Your task to perform on an android device: Open Youtube and go to the subscriptions tab Image 0: 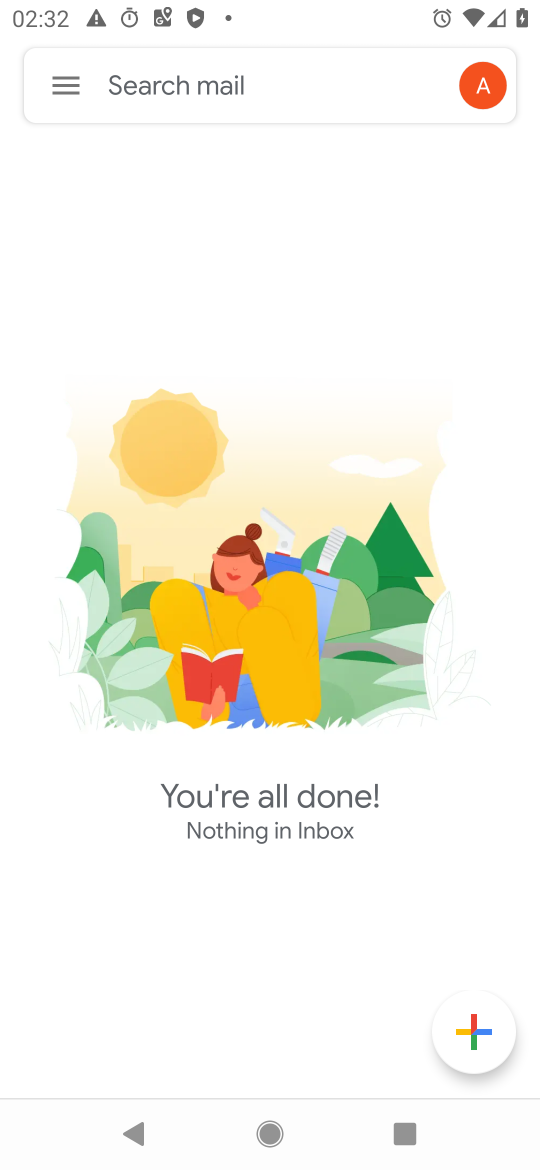
Step 0: press home button
Your task to perform on an android device: Open Youtube and go to the subscriptions tab Image 1: 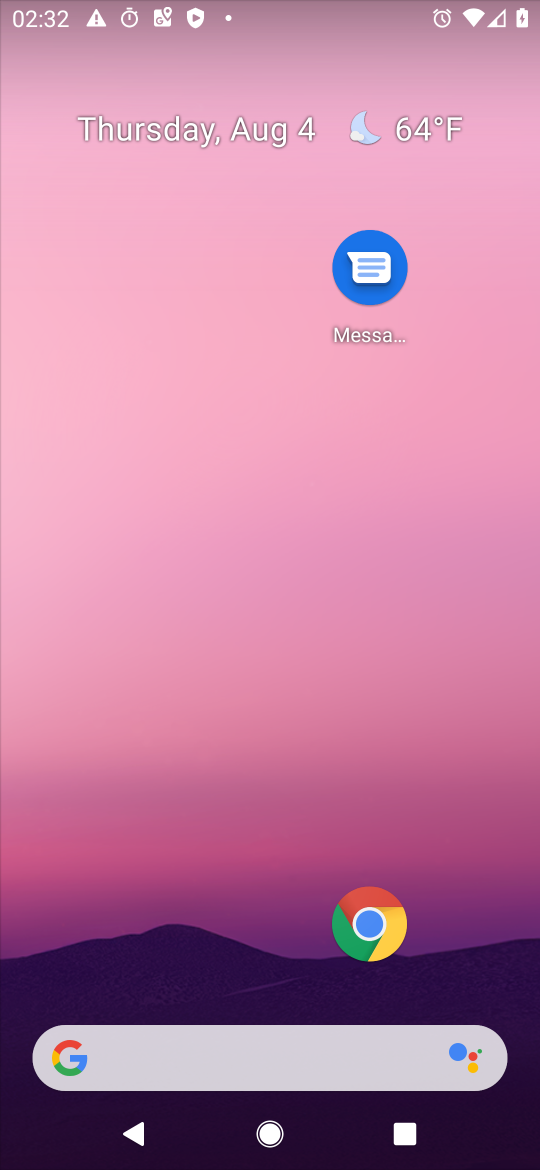
Step 1: drag from (90, 1104) to (356, 117)
Your task to perform on an android device: Open Youtube and go to the subscriptions tab Image 2: 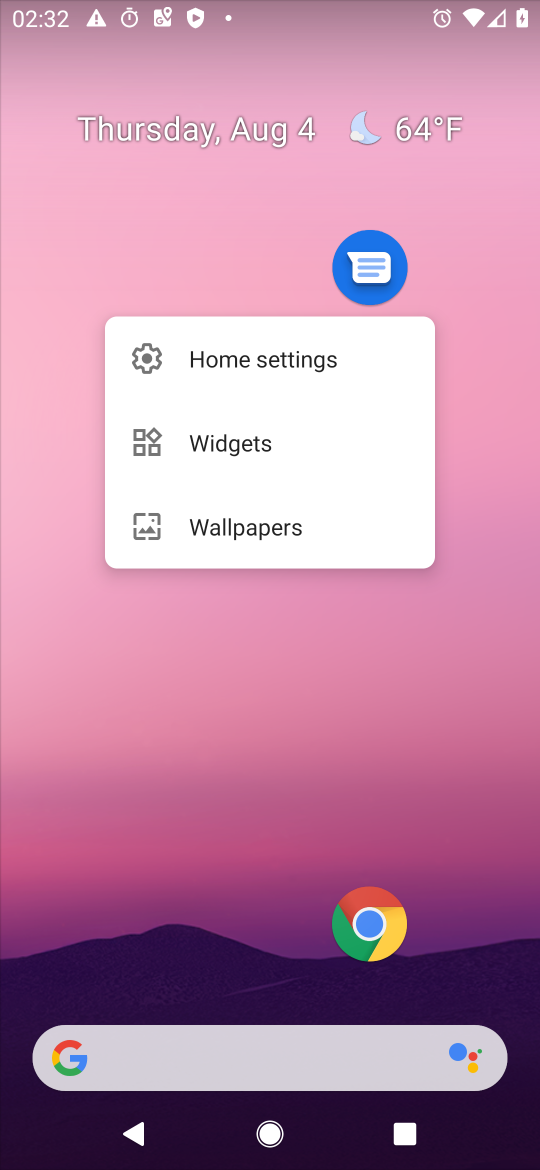
Step 2: drag from (219, 434) to (344, 12)
Your task to perform on an android device: Open Youtube and go to the subscriptions tab Image 3: 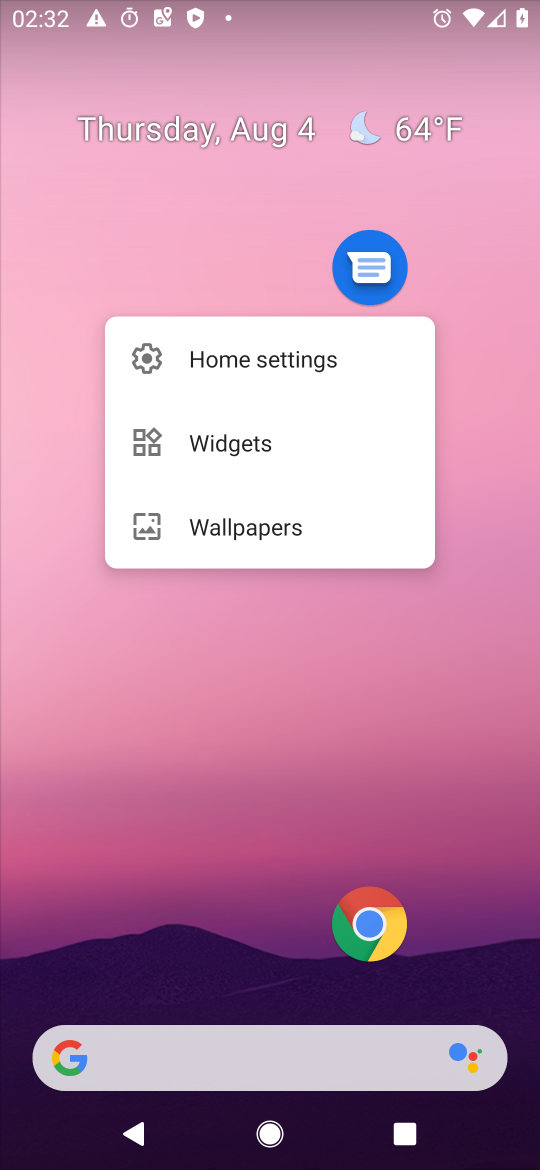
Step 3: drag from (319, 153) to (315, 20)
Your task to perform on an android device: Open Youtube and go to the subscriptions tab Image 4: 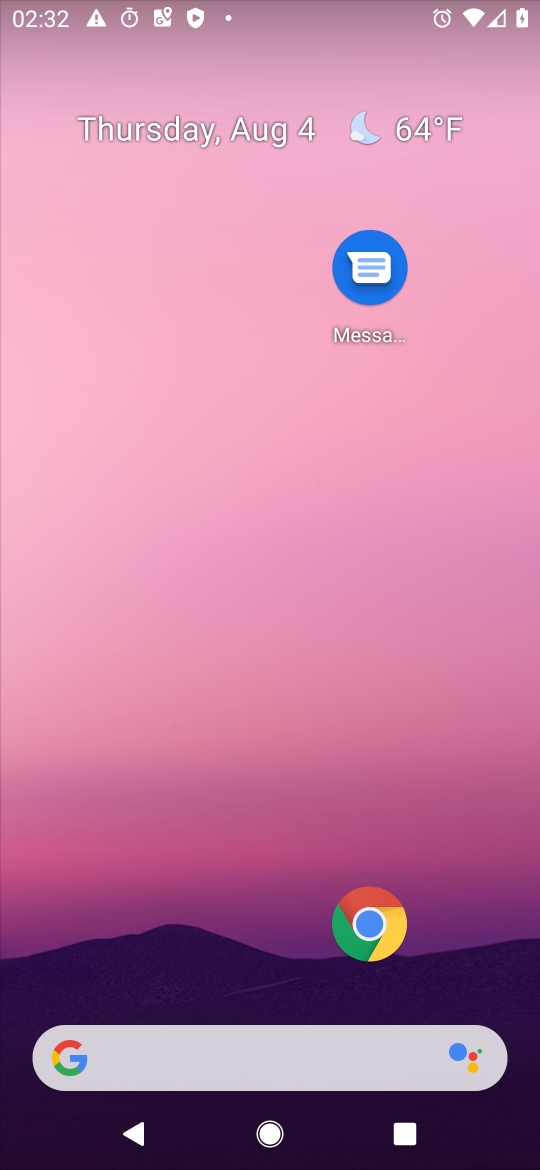
Step 4: drag from (93, 747) to (302, 139)
Your task to perform on an android device: Open Youtube and go to the subscriptions tab Image 5: 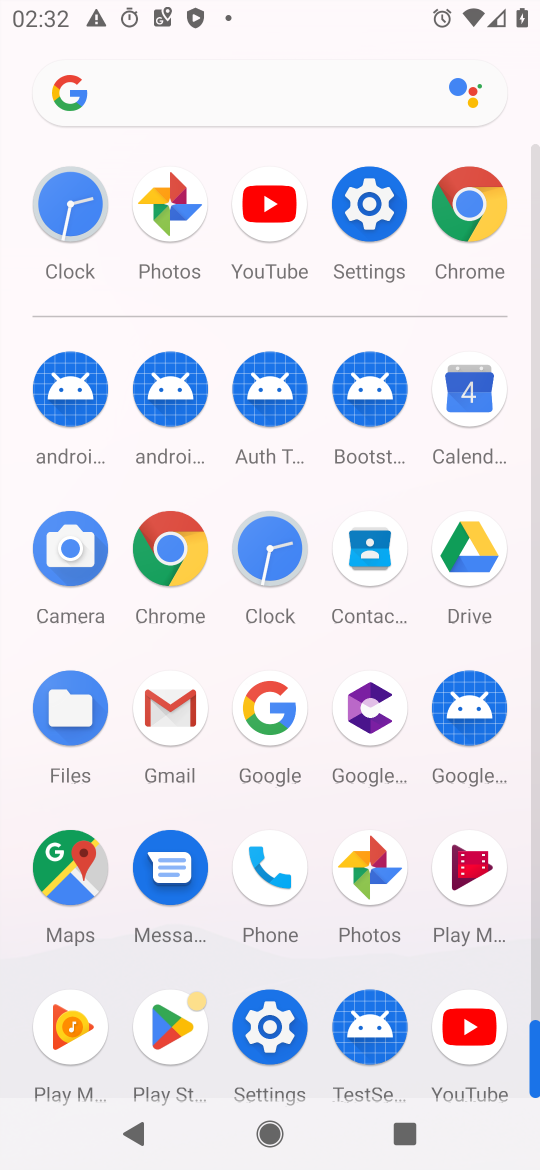
Step 5: click (446, 1023)
Your task to perform on an android device: Open Youtube and go to the subscriptions tab Image 6: 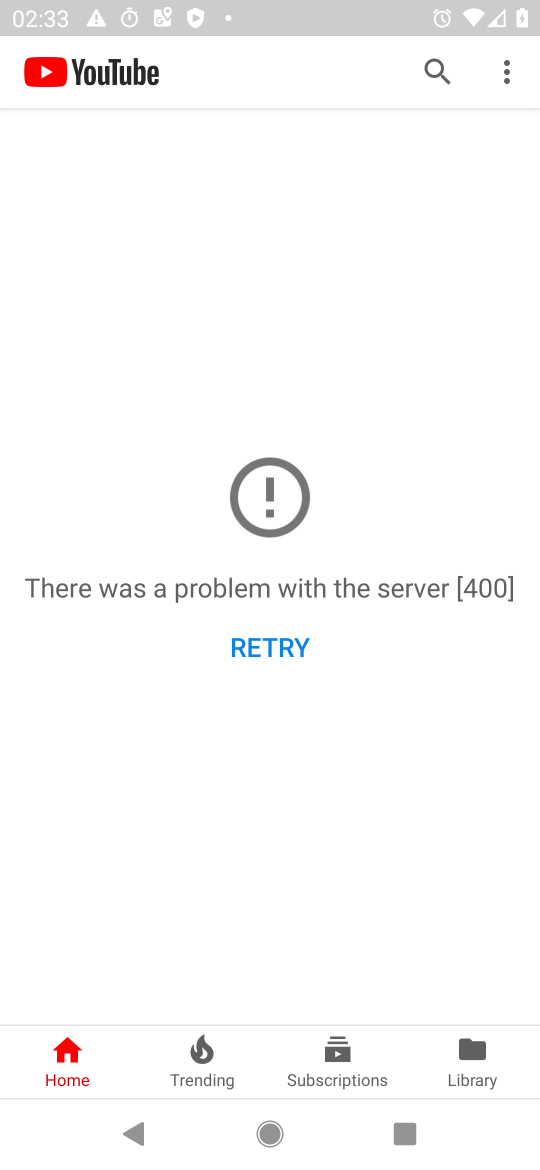
Step 6: click (362, 1052)
Your task to perform on an android device: Open Youtube and go to the subscriptions tab Image 7: 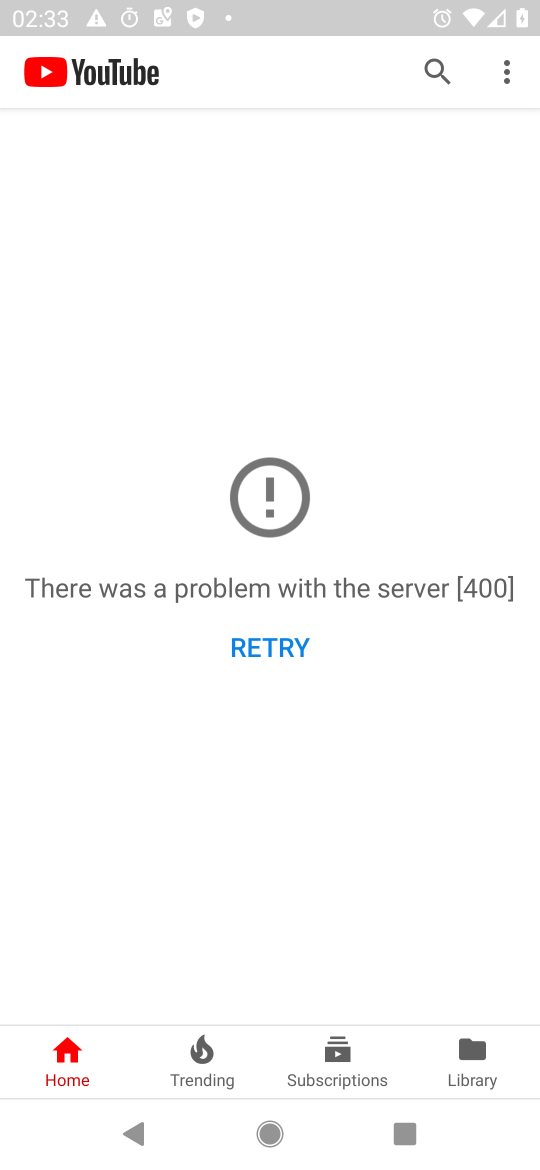
Step 7: click (345, 1048)
Your task to perform on an android device: Open Youtube and go to the subscriptions tab Image 8: 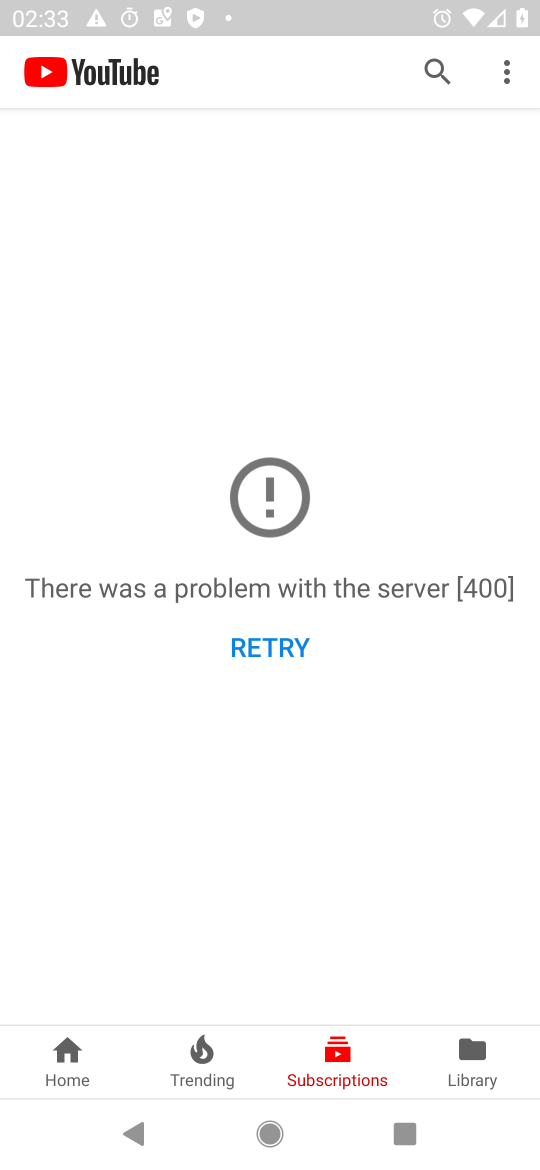
Step 8: task complete